Your task to perform on an android device: Open accessibility settings Image 0: 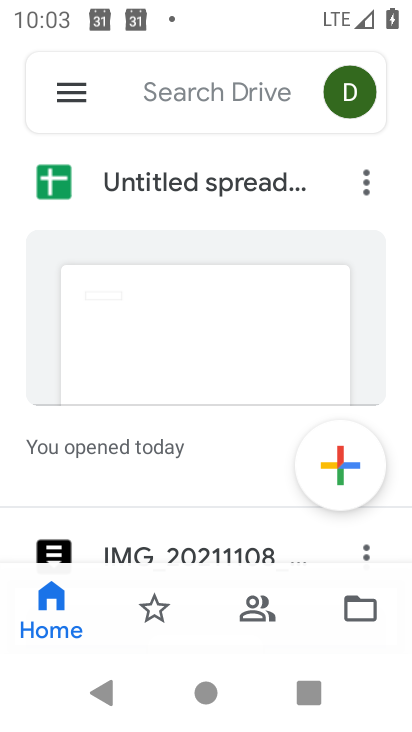
Step 0: press home button
Your task to perform on an android device: Open accessibility settings Image 1: 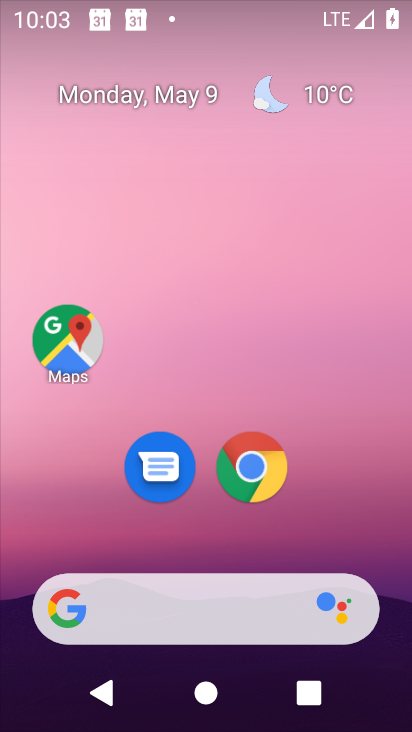
Step 1: drag from (326, 543) to (343, 12)
Your task to perform on an android device: Open accessibility settings Image 2: 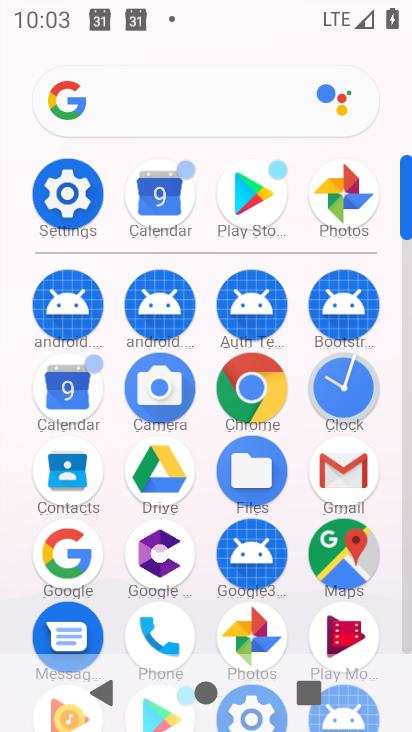
Step 2: click (60, 208)
Your task to perform on an android device: Open accessibility settings Image 3: 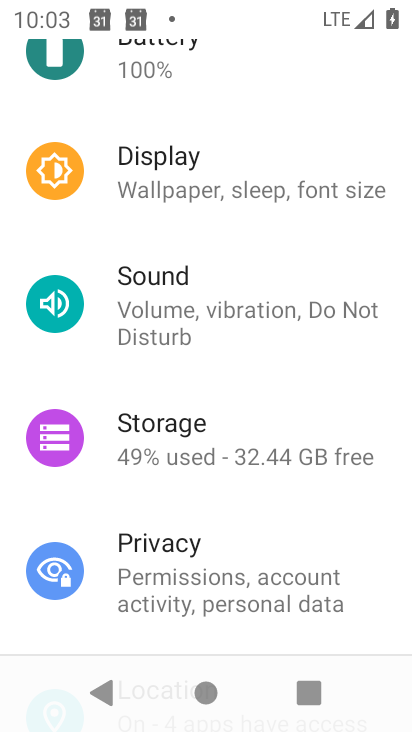
Step 3: drag from (283, 601) to (267, 101)
Your task to perform on an android device: Open accessibility settings Image 4: 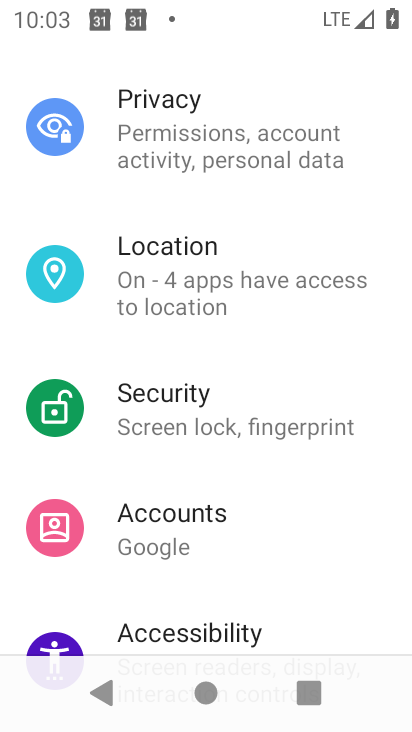
Step 4: drag from (234, 551) to (224, 190)
Your task to perform on an android device: Open accessibility settings Image 5: 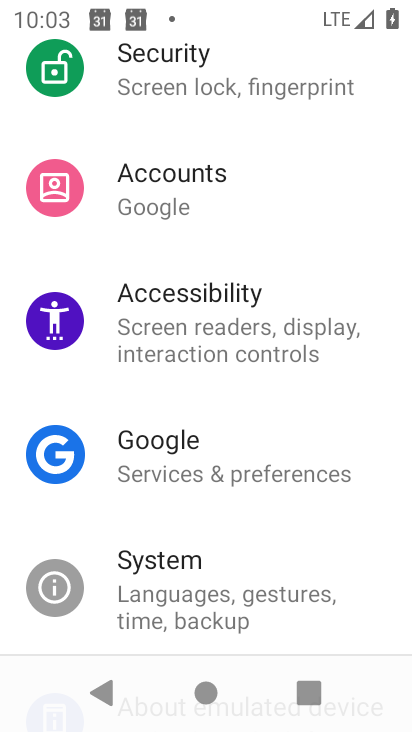
Step 5: click (181, 313)
Your task to perform on an android device: Open accessibility settings Image 6: 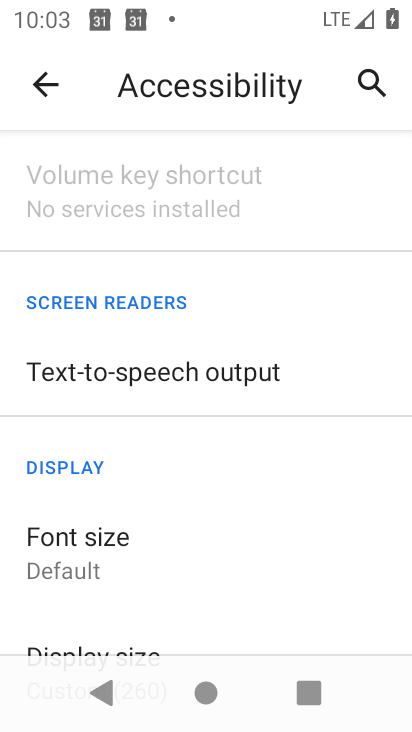
Step 6: task complete